Your task to perform on an android device: Open the web browser Image 0: 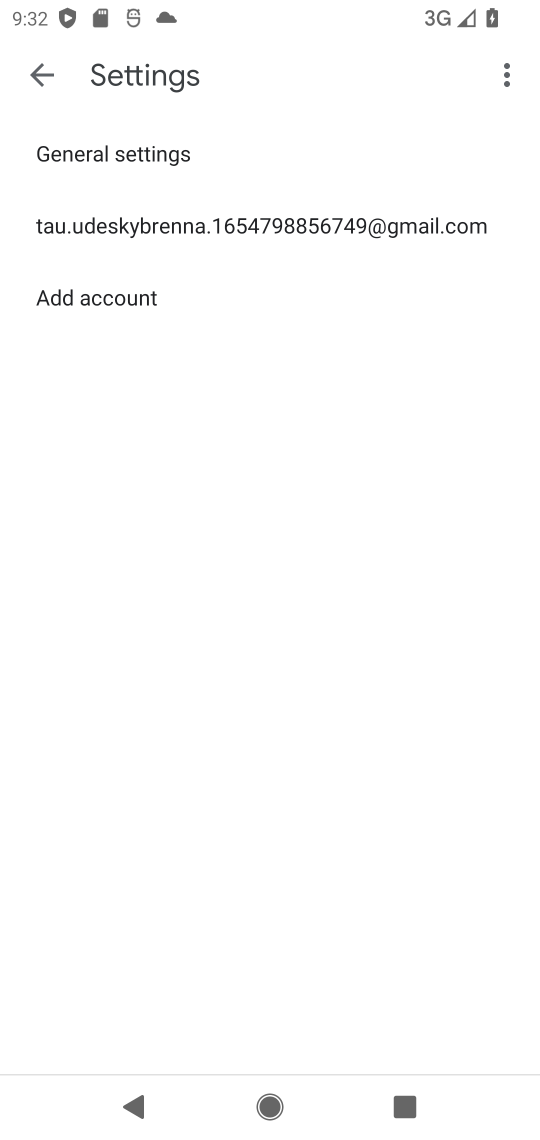
Step 0: press home button
Your task to perform on an android device: Open the web browser Image 1: 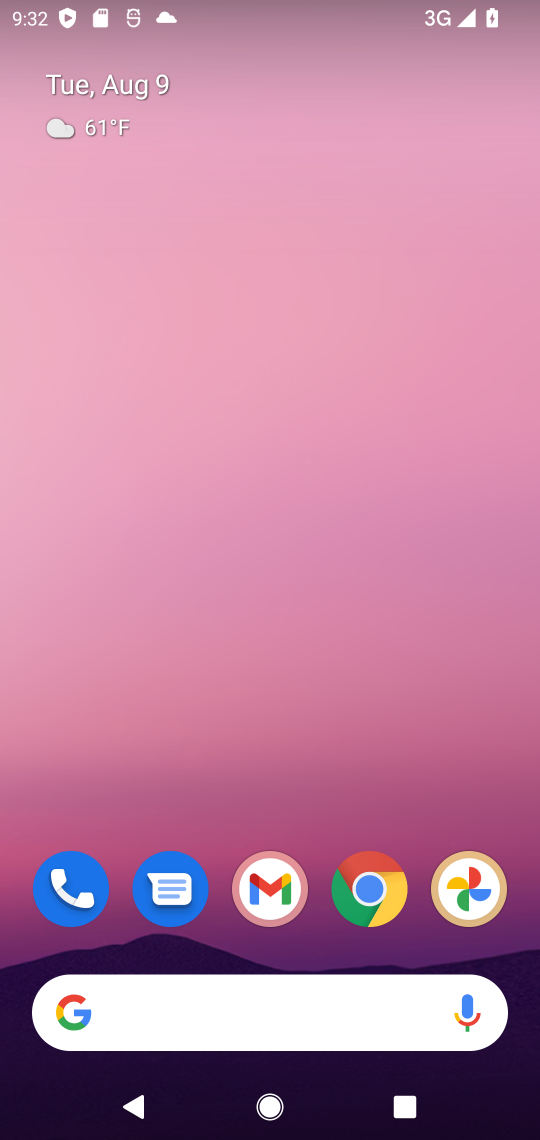
Step 1: drag from (158, 895) to (103, 68)
Your task to perform on an android device: Open the web browser Image 2: 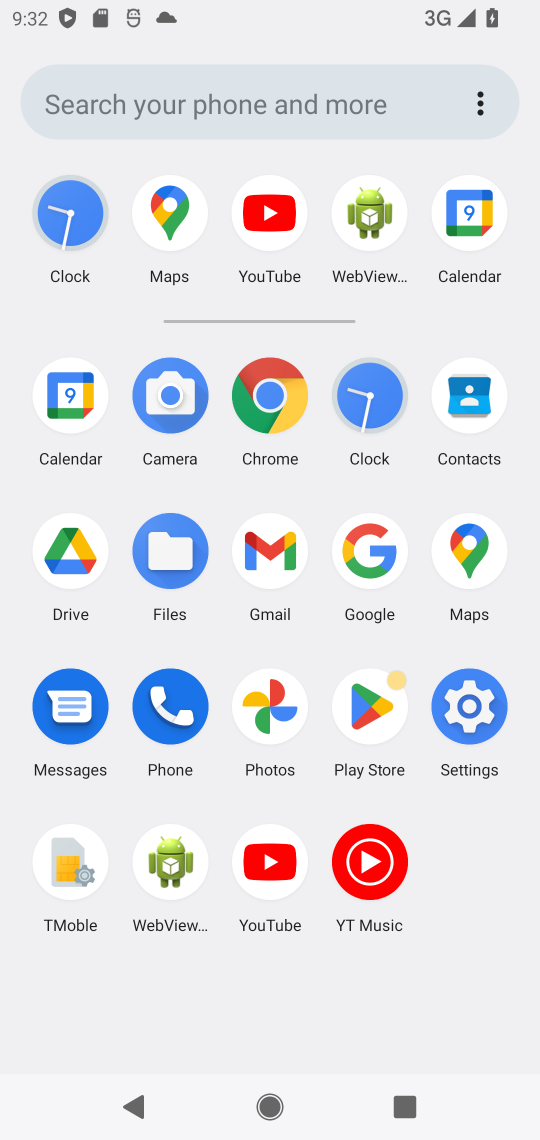
Step 2: click (284, 383)
Your task to perform on an android device: Open the web browser Image 3: 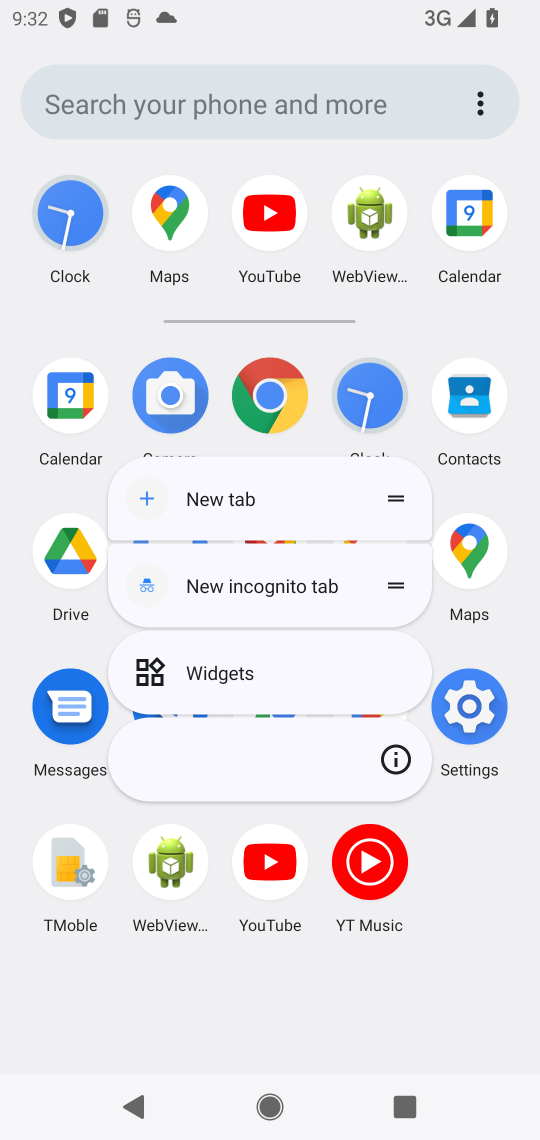
Step 3: click (273, 391)
Your task to perform on an android device: Open the web browser Image 4: 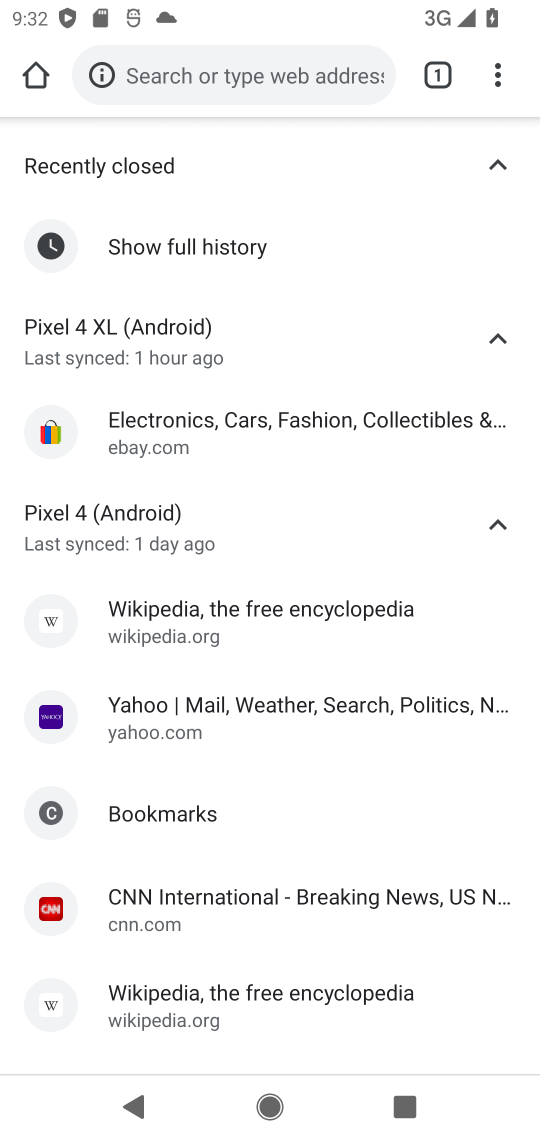
Step 4: task complete